Your task to perform on an android device: turn on javascript in the chrome app Image 0: 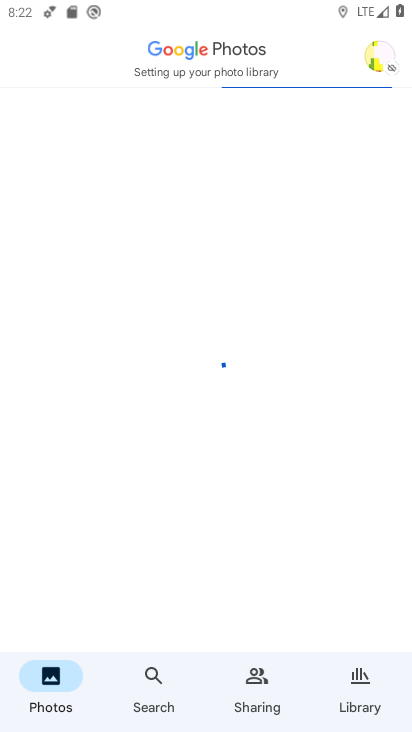
Step 0: press home button
Your task to perform on an android device: turn on javascript in the chrome app Image 1: 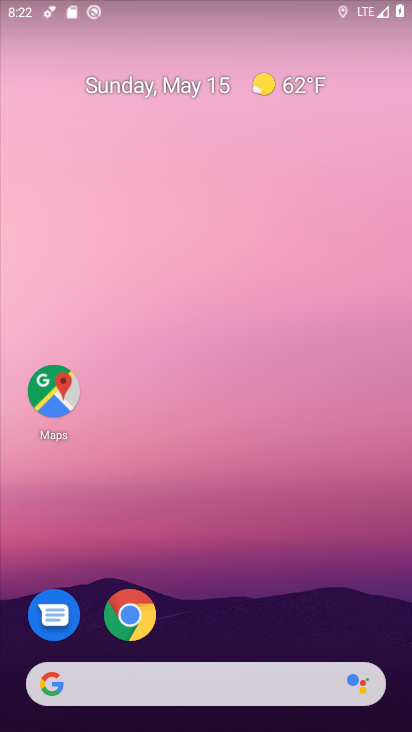
Step 1: click (110, 613)
Your task to perform on an android device: turn on javascript in the chrome app Image 2: 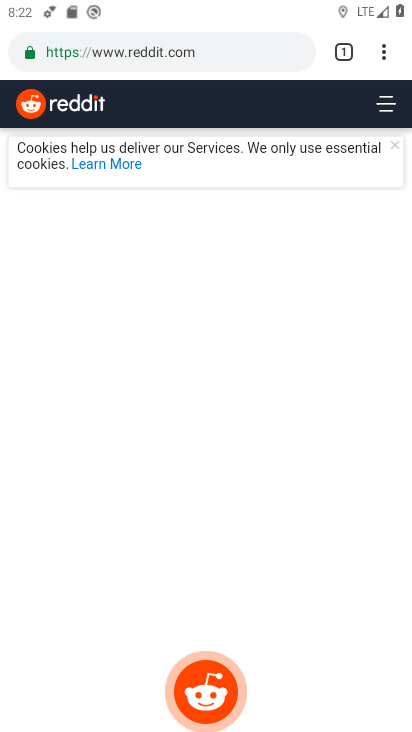
Step 2: click (387, 49)
Your task to perform on an android device: turn on javascript in the chrome app Image 3: 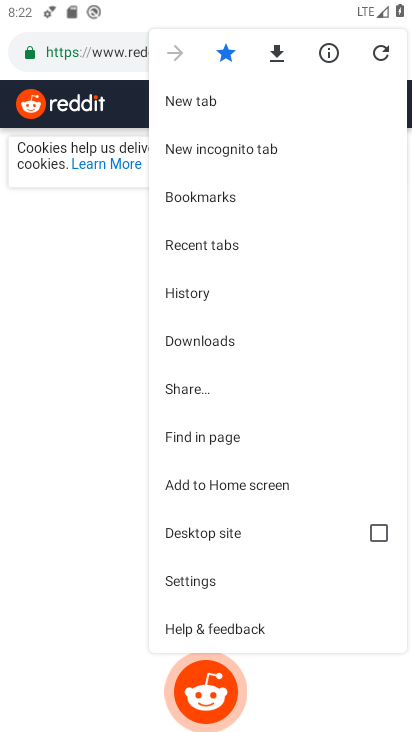
Step 3: click (201, 579)
Your task to perform on an android device: turn on javascript in the chrome app Image 4: 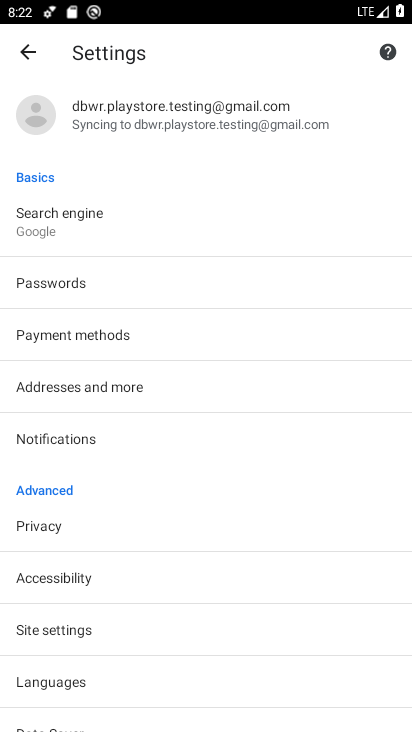
Step 4: click (99, 616)
Your task to perform on an android device: turn on javascript in the chrome app Image 5: 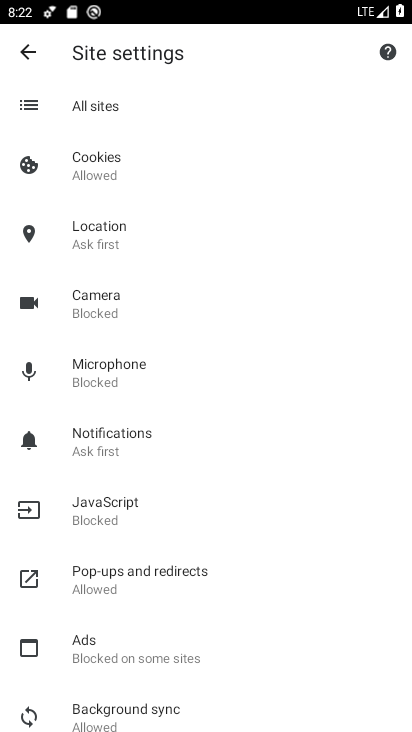
Step 5: click (131, 517)
Your task to perform on an android device: turn on javascript in the chrome app Image 6: 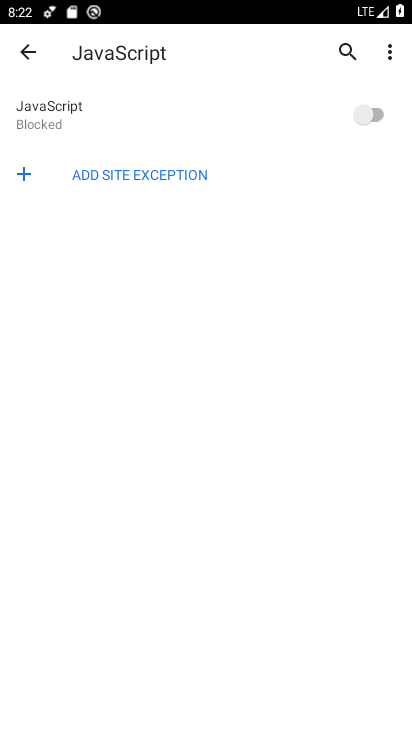
Step 6: click (368, 119)
Your task to perform on an android device: turn on javascript in the chrome app Image 7: 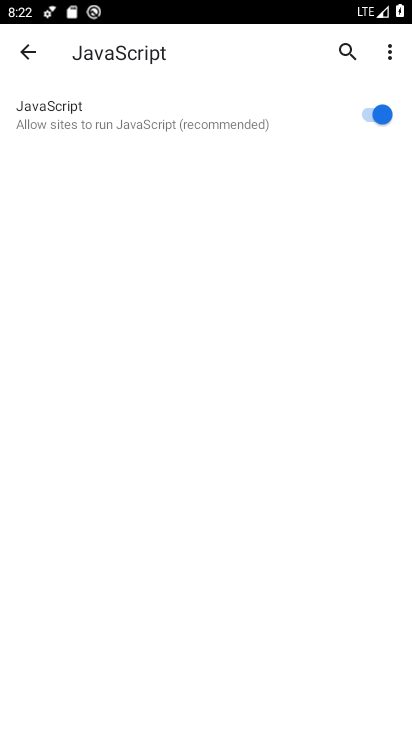
Step 7: task complete